Your task to perform on an android device: check out phone information Image 0: 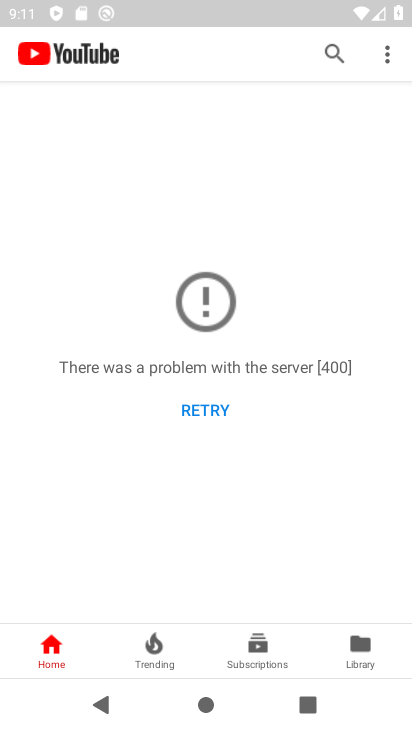
Step 0: press home button
Your task to perform on an android device: check out phone information Image 1: 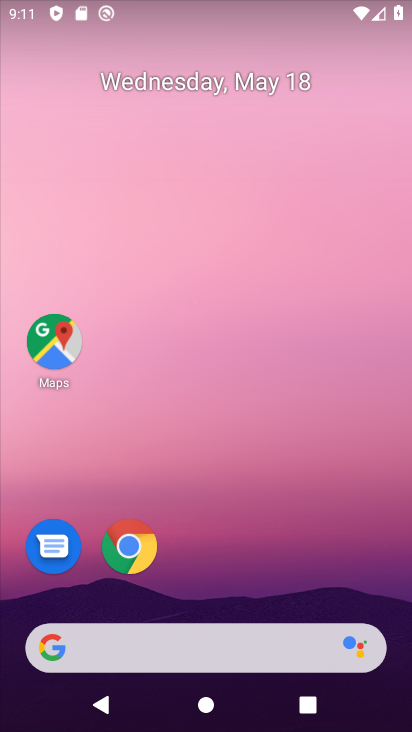
Step 1: drag from (197, 642) to (184, 147)
Your task to perform on an android device: check out phone information Image 2: 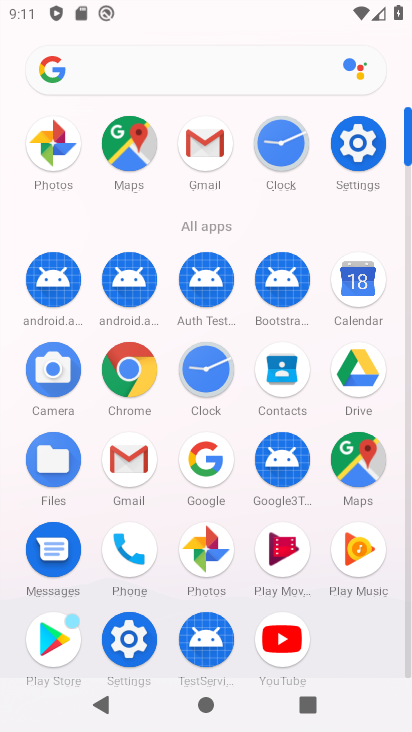
Step 2: click (136, 649)
Your task to perform on an android device: check out phone information Image 3: 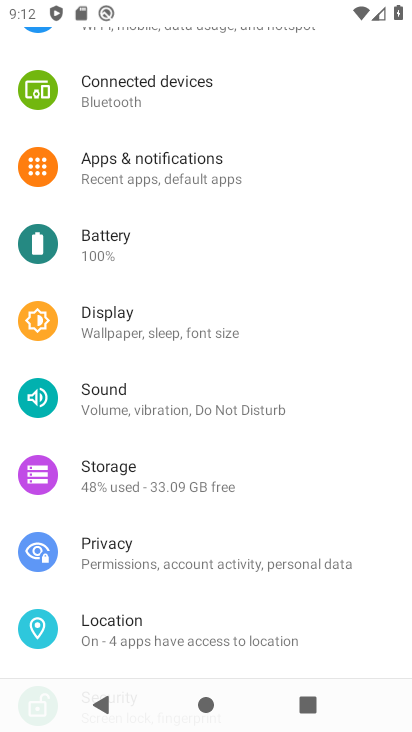
Step 3: drag from (169, 616) to (163, 144)
Your task to perform on an android device: check out phone information Image 4: 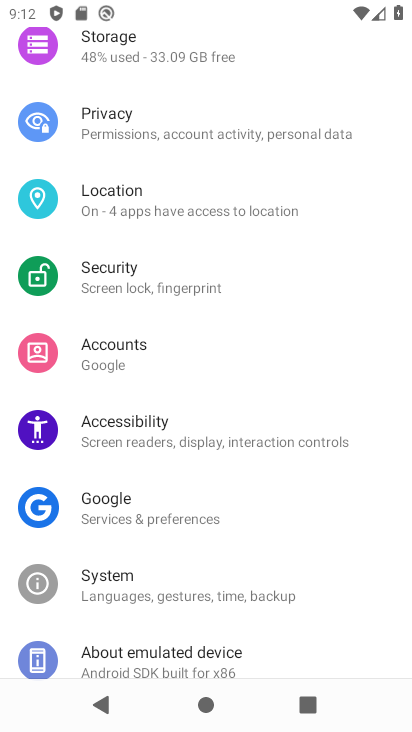
Step 4: click (144, 656)
Your task to perform on an android device: check out phone information Image 5: 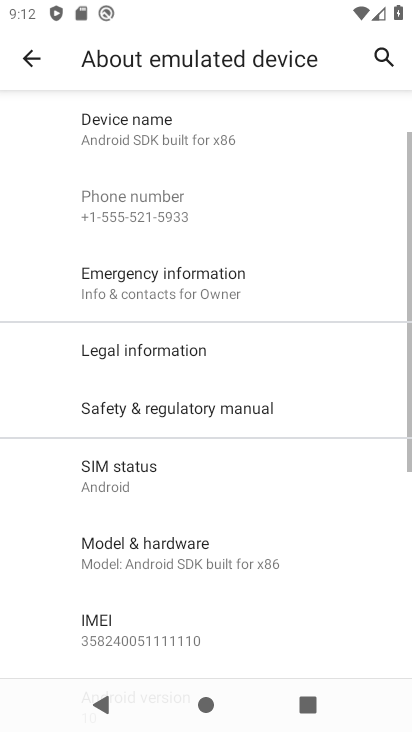
Step 5: task complete